Your task to perform on an android device: See recent photos Image 0: 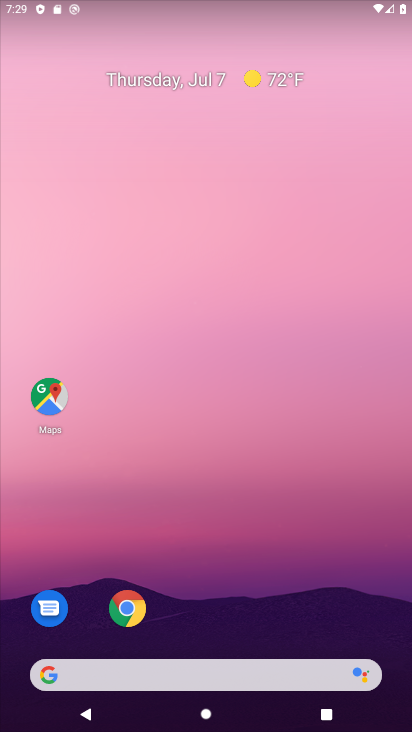
Step 0: drag from (394, 711) to (288, 21)
Your task to perform on an android device: See recent photos Image 1: 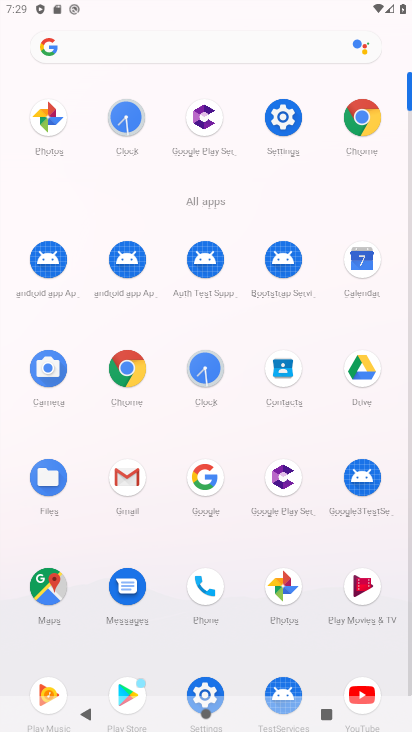
Step 1: click (283, 589)
Your task to perform on an android device: See recent photos Image 2: 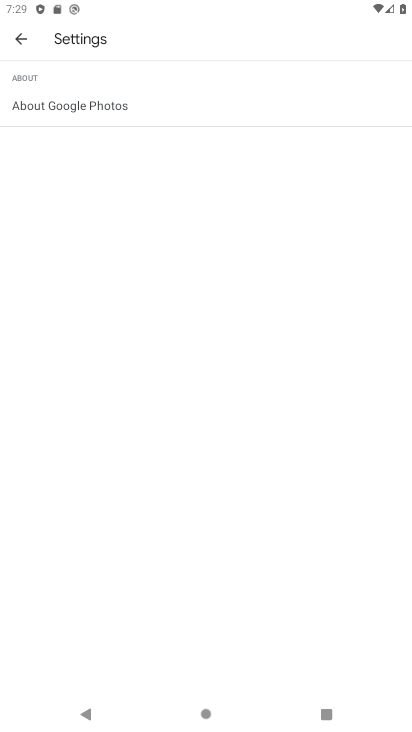
Step 2: task complete